Your task to perform on an android device: Open Chrome and go to settings Image 0: 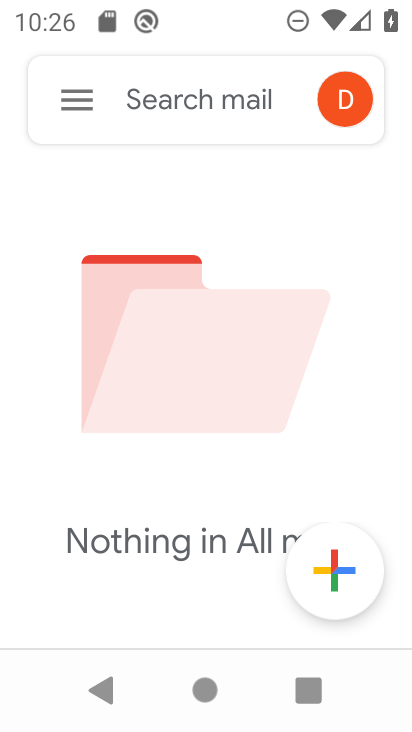
Step 0: press home button
Your task to perform on an android device: Open Chrome and go to settings Image 1: 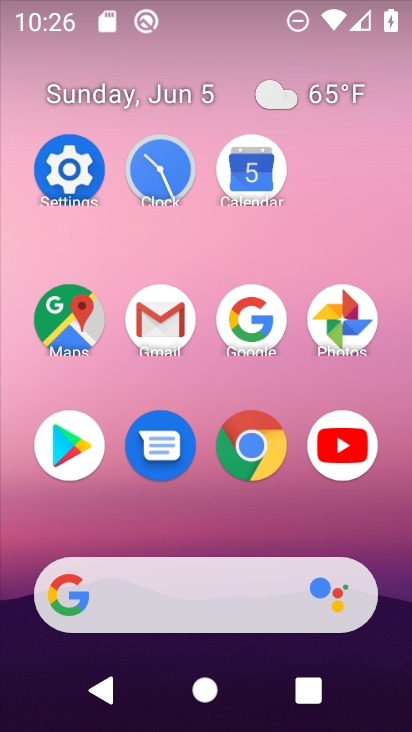
Step 1: click (251, 437)
Your task to perform on an android device: Open Chrome and go to settings Image 2: 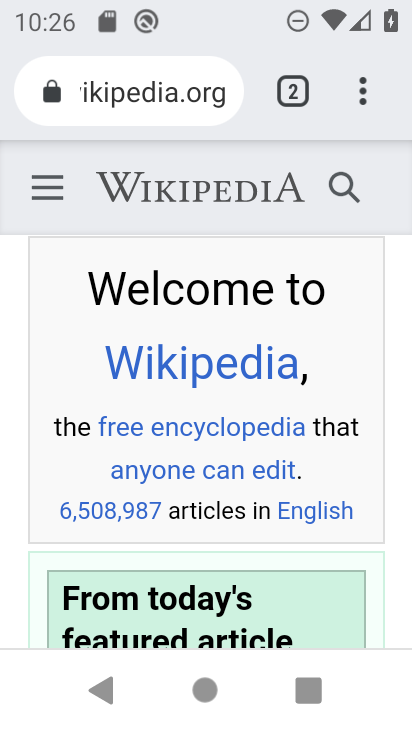
Step 2: click (360, 99)
Your task to perform on an android device: Open Chrome and go to settings Image 3: 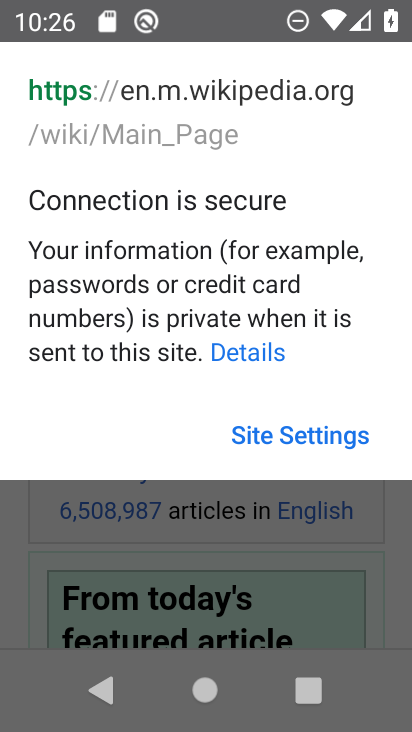
Step 3: click (370, 100)
Your task to perform on an android device: Open Chrome and go to settings Image 4: 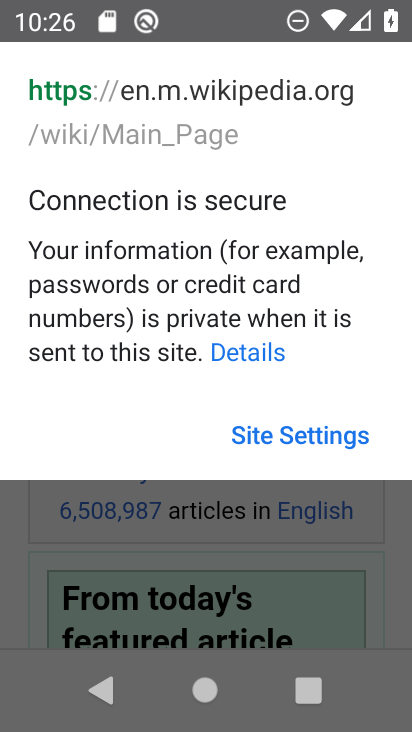
Step 4: click (404, 528)
Your task to perform on an android device: Open Chrome and go to settings Image 5: 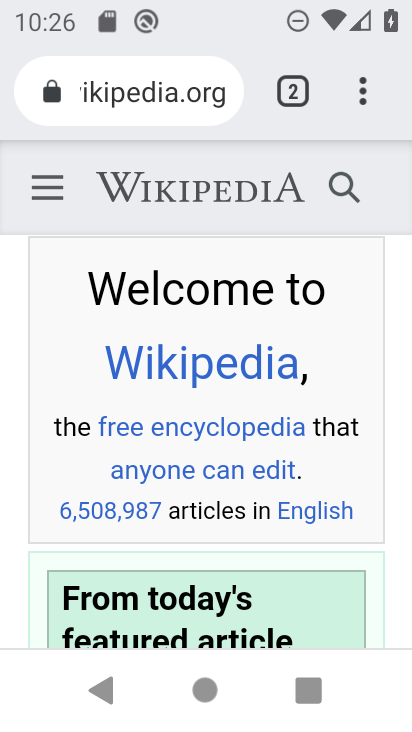
Step 5: click (372, 77)
Your task to perform on an android device: Open Chrome and go to settings Image 6: 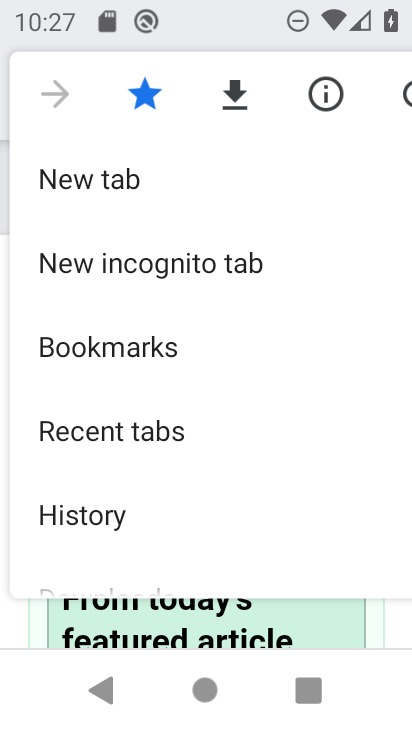
Step 6: drag from (210, 472) to (178, 183)
Your task to perform on an android device: Open Chrome and go to settings Image 7: 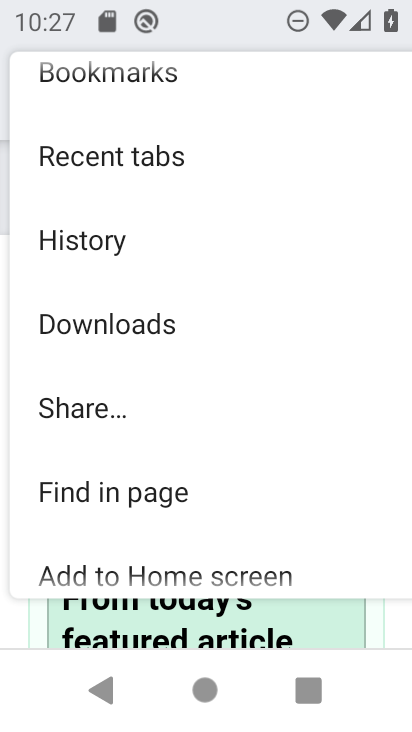
Step 7: drag from (205, 482) to (241, 216)
Your task to perform on an android device: Open Chrome and go to settings Image 8: 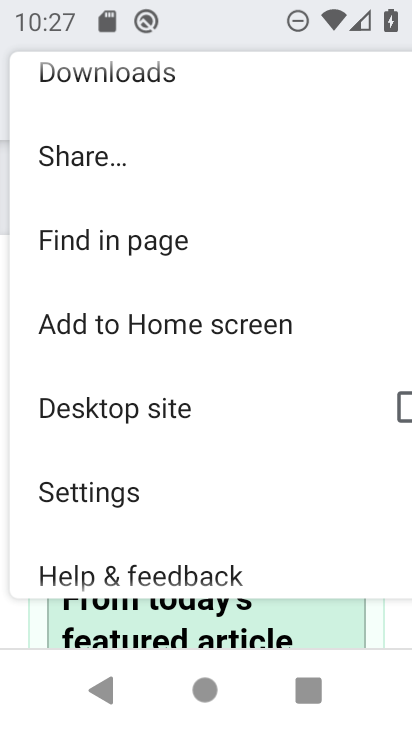
Step 8: click (138, 491)
Your task to perform on an android device: Open Chrome and go to settings Image 9: 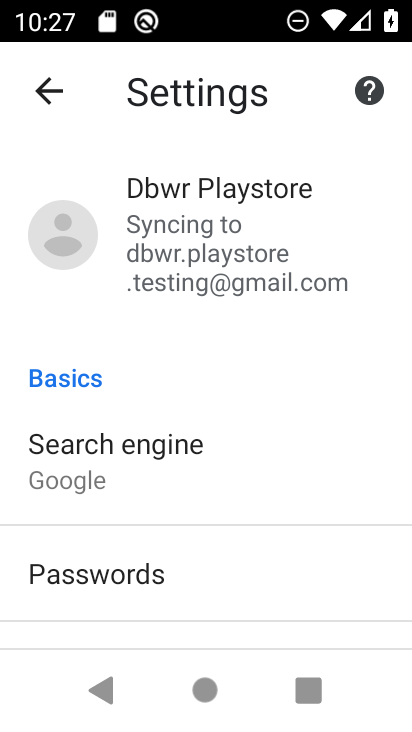
Step 9: task complete